Your task to perform on an android device: Go to battery settings Image 0: 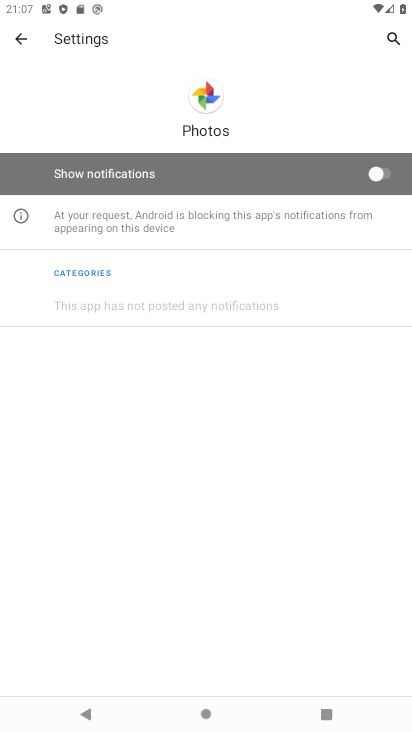
Step 0: press home button
Your task to perform on an android device: Go to battery settings Image 1: 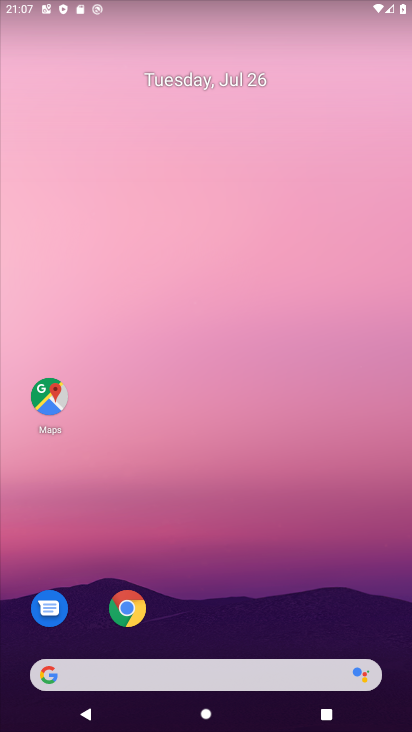
Step 1: drag from (19, 698) to (192, 233)
Your task to perform on an android device: Go to battery settings Image 2: 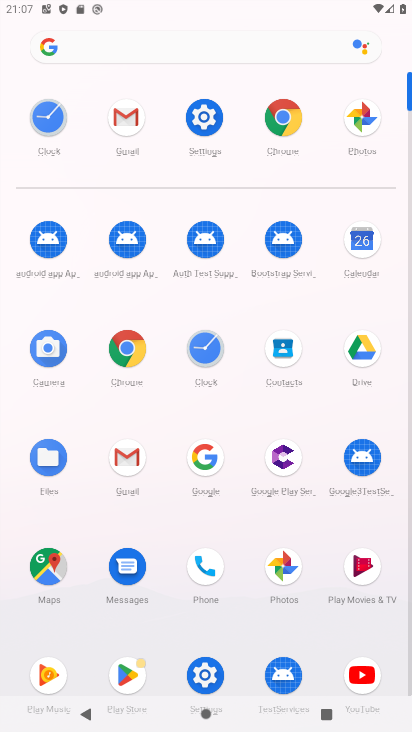
Step 2: drag from (48, 707) to (261, 14)
Your task to perform on an android device: Go to battery settings Image 3: 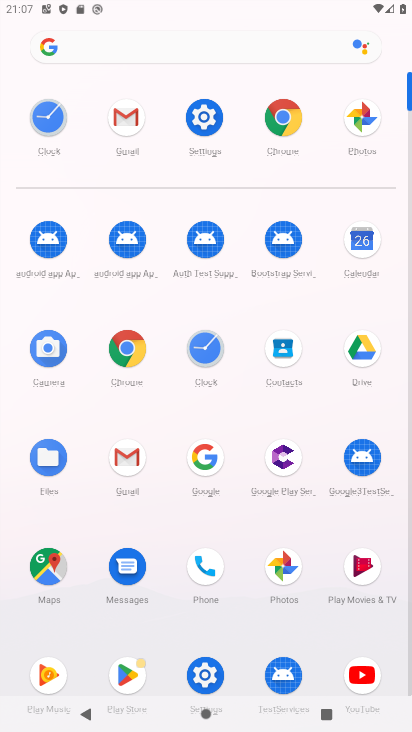
Step 3: click (209, 681)
Your task to perform on an android device: Go to battery settings Image 4: 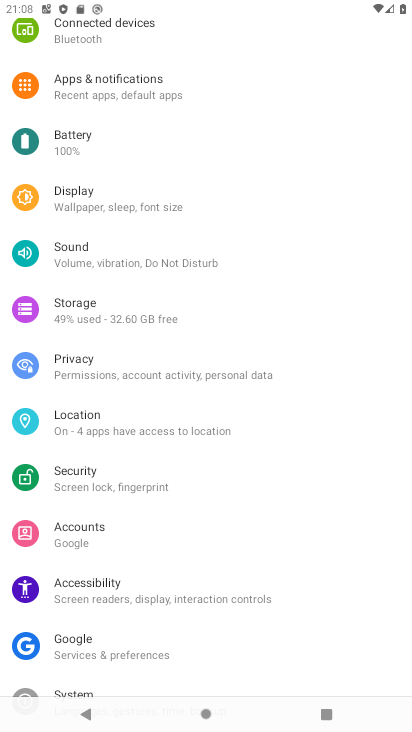
Step 4: click (70, 141)
Your task to perform on an android device: Go to battery settings Image 5: 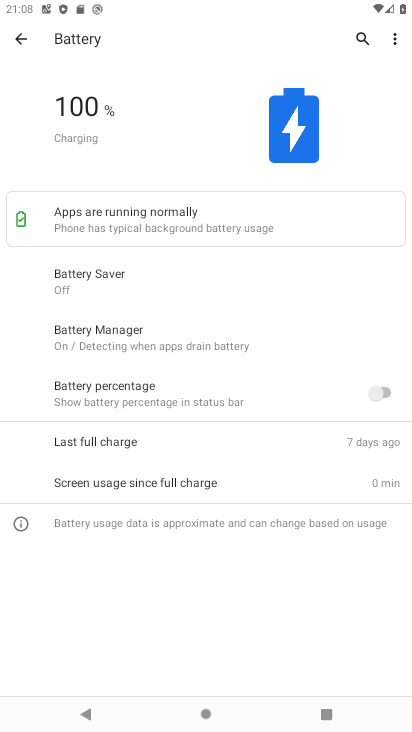
Step 5: task complete